Your task to perform on an android device: Open calendar and show me the fourth week of next month Image 0: 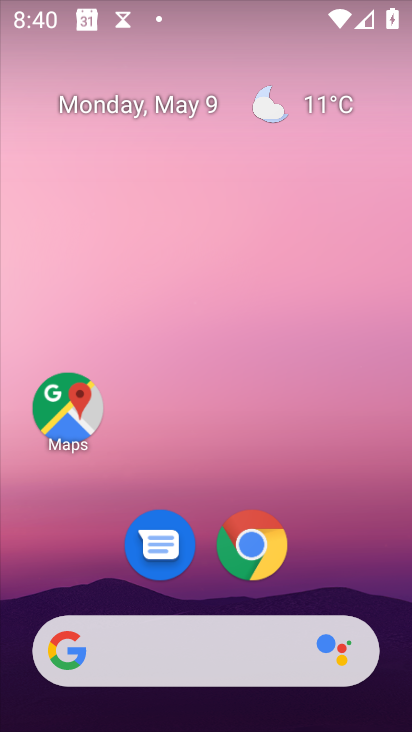
Step 0: drag from (213, 725) to (216, 230)
Your task to perform on an android device: Open calendar and show me the fourth week of next month Image 1: 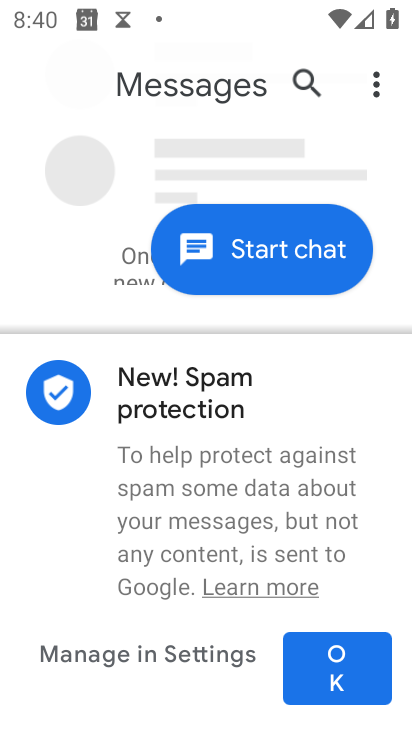
Step 1: press home button
Your task to perform on an android device: Open calendar and show me the fourth week of next month Image 2: 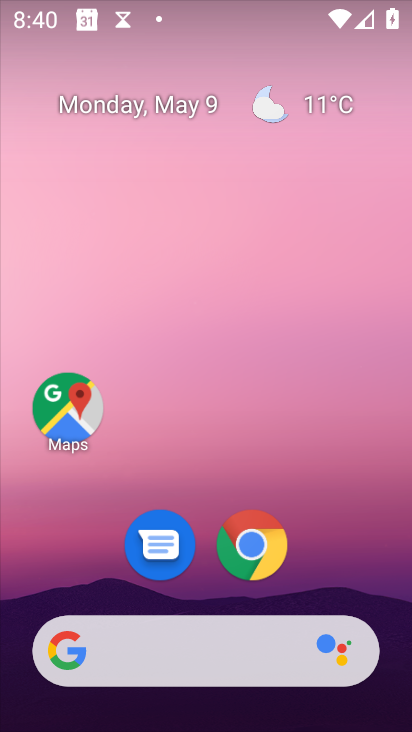
Step 2: drag from (212, 725) to (213, 329)
Your task to perform on an android device: Open calendar and show me the fourth week of next month Image 3: 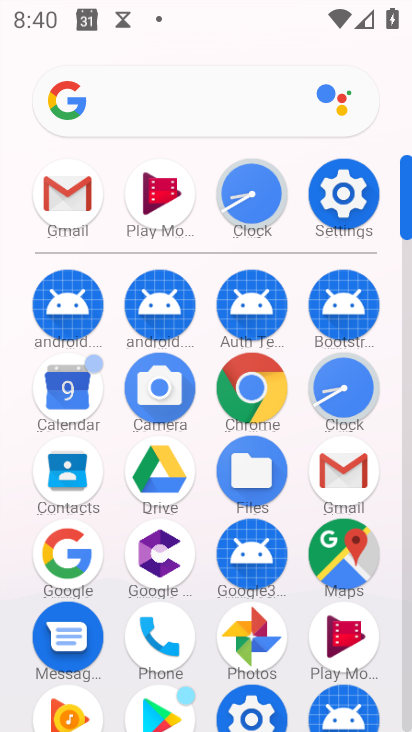
Step 3: click (59, 394)
Your task to perform on an android device: Open calendar and show me the fourth week of next month Image 4: 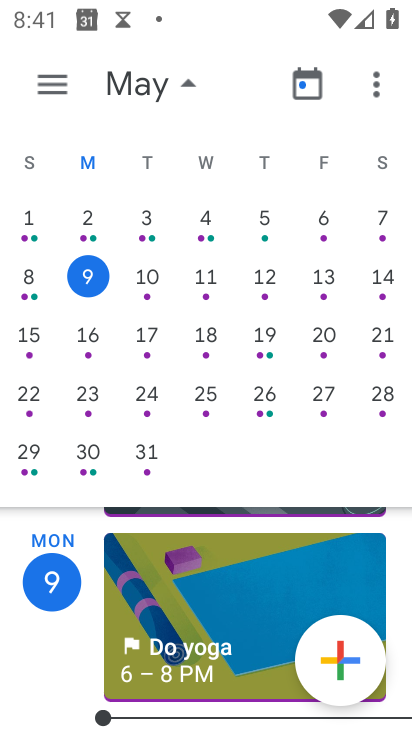
Step 4: drag from (362, 302) to (1, 276)
Your task to perform on an android device: Open calendar and show me the fourth week of next month Image 5: 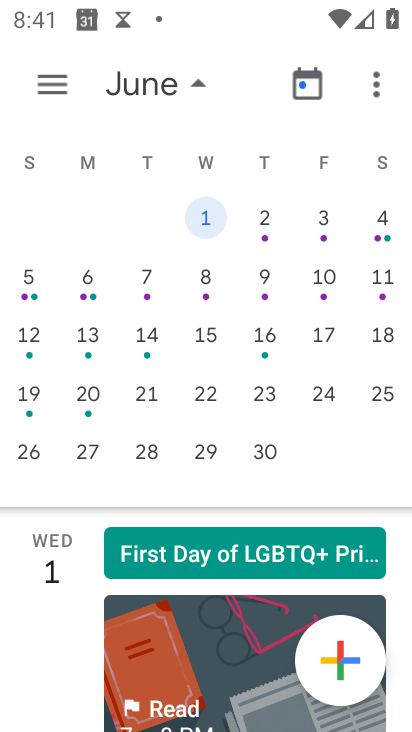
Step 5: click (83, 444)
Your task to perform on an android device: Open calendar and show me the fourth week of next month Image 6: 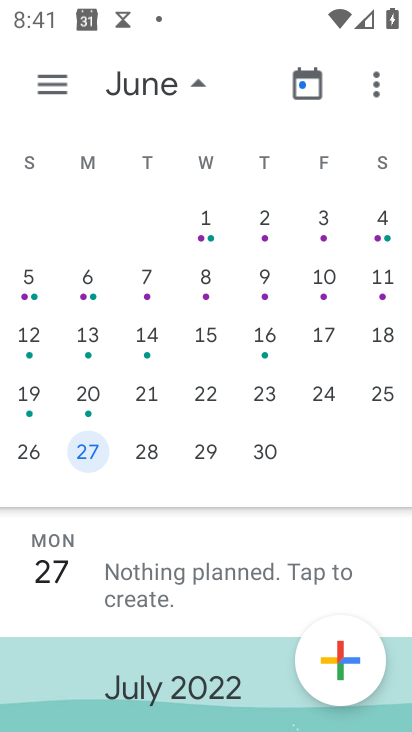
Step 6: click (43, 76)
Your task to perform on an android device: Open calendar and show me the fourth week of next month Image 7: 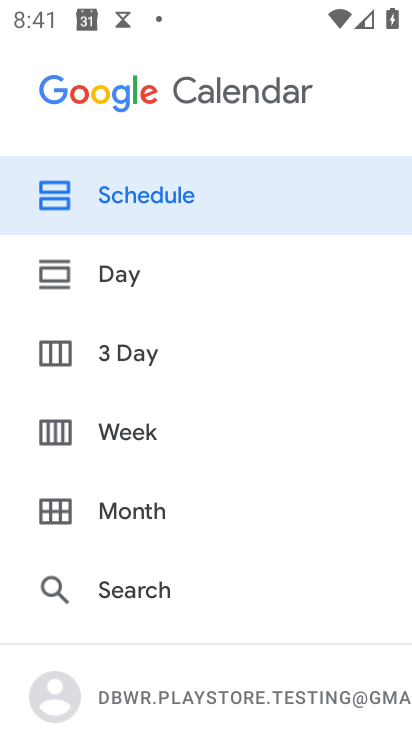
Step 7: click (145, 434)
Your task to perform on an android device: Open calendar and show me the fourth week of next month Image 8: 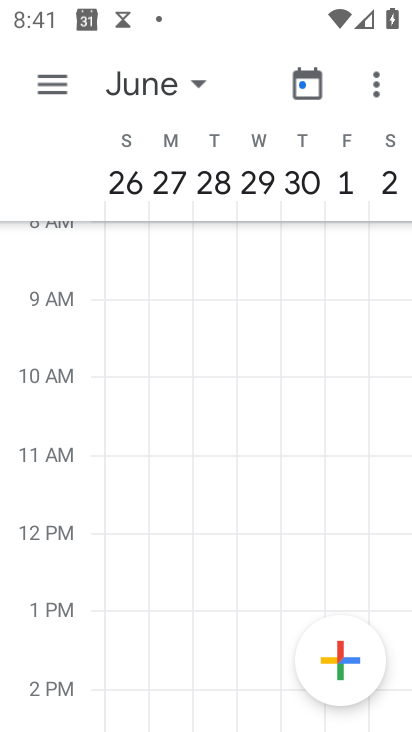
Step 8: task complete